Your task to perform on an android device: Set the phone to "Do not disturb". Image 0: 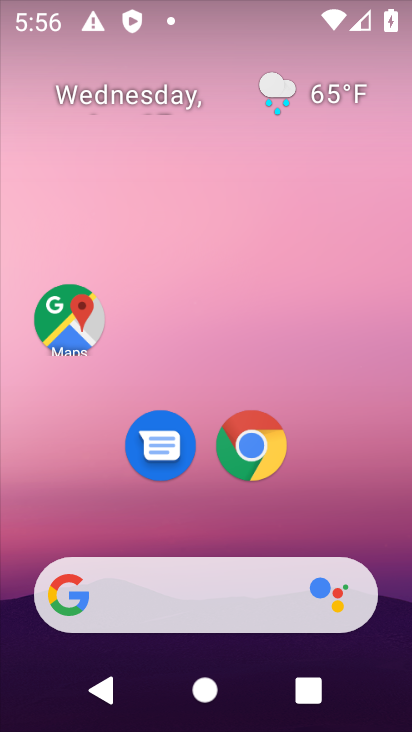
Step 0: drag from (227, 515) to (231, 168)
Your task to perform on an android device: Set the phone to "Do not disturb". Image 1: 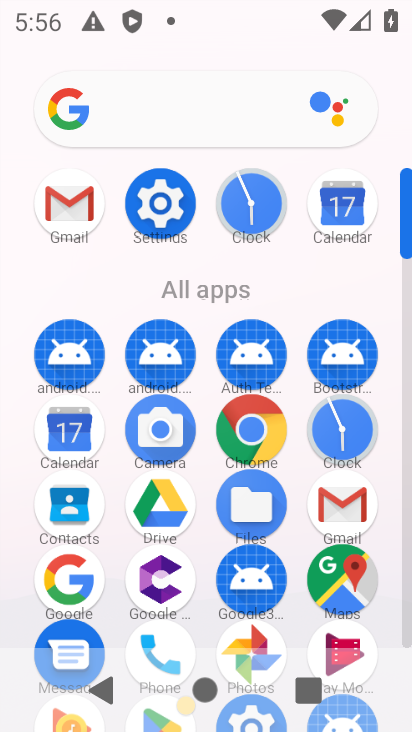
Step 1: click (172, 194)
Your task to perform on an android device: Set the phone to "Do not disturb". Image 2: 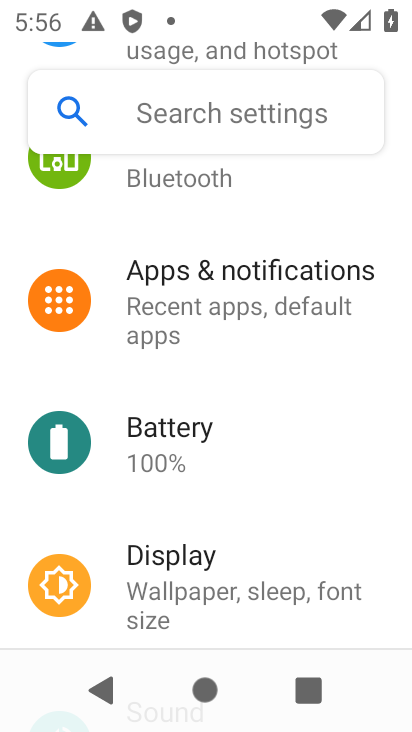
Step 2: drag from (254, 550) to (260, 198)
Your task to perform on an android device: Set the phone to "Do not disturb". Image 3: 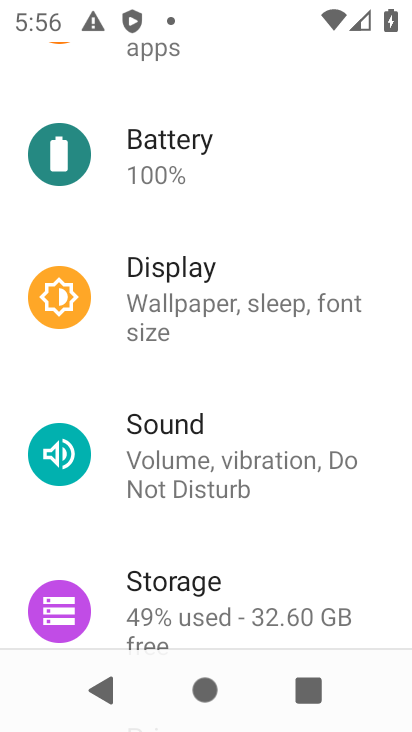
Step 3: click (214, 451)
Your task to perform on an android device: Set the phone to "Do not disturb". Image 4: 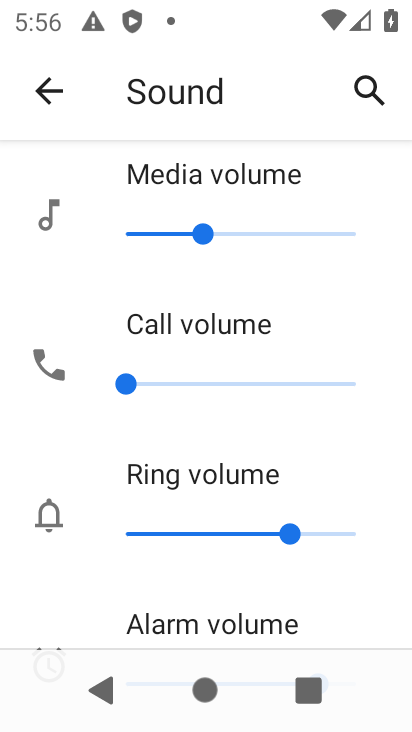
Step 4: drag from (194, 565) to (211, 176)
Your task to perform on an android device: Set the phone to "Do not disturb". Image 5: 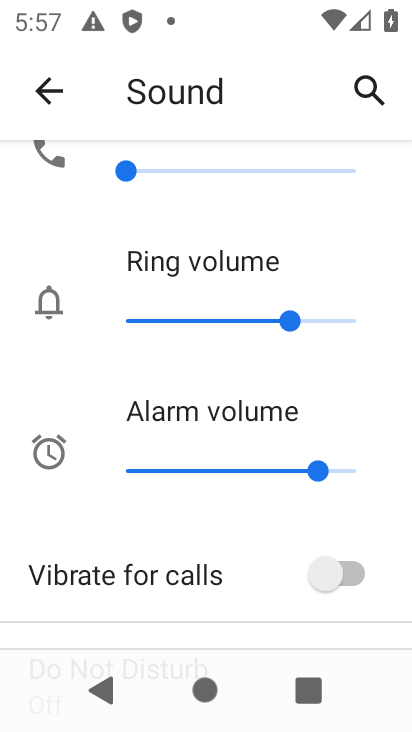
Step 5: drag from (204, 546) to (219, 187)
Your task to perform on an android device: Set the phone to "Do not disturb". Image 6: 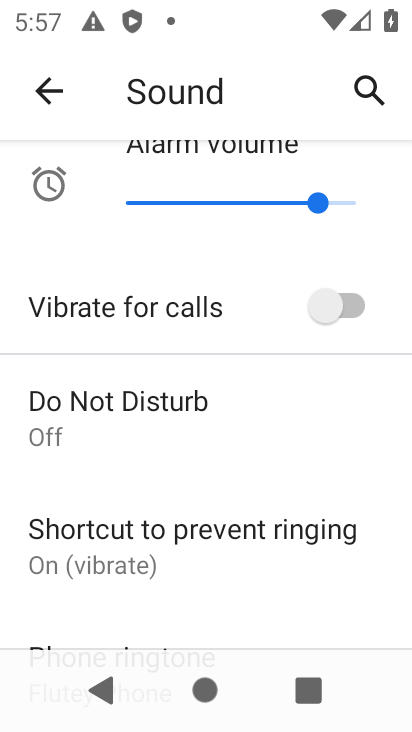
Step 6: click (170, 408)
Your task to perform on an android device: Set the phone to "Do not disturb". Image 7: 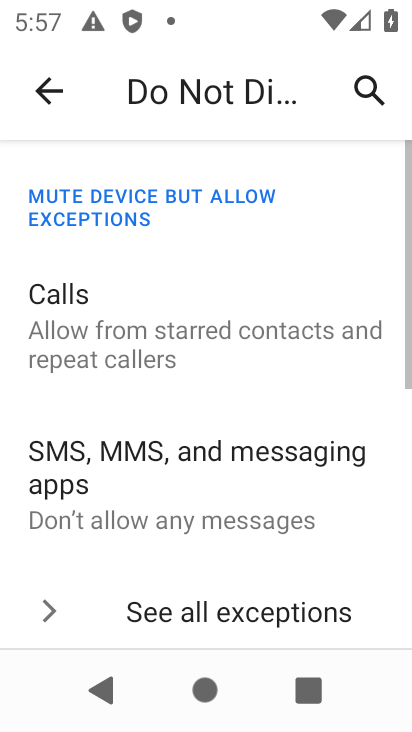
Step 7: drag from (176, 533) to (180, 188)
Your task to perform on an android device: Set the phone to "Do not disturb". Image 8: 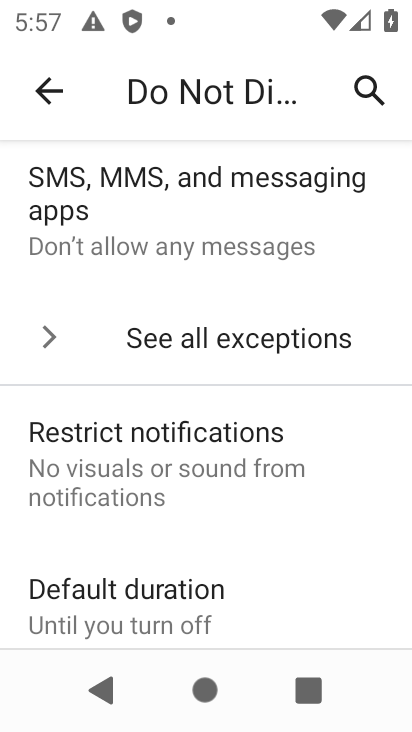
Step 8: click (163, 593)
Your task to perform on an android device: Set the phone to "Do not disturb". Image 9: 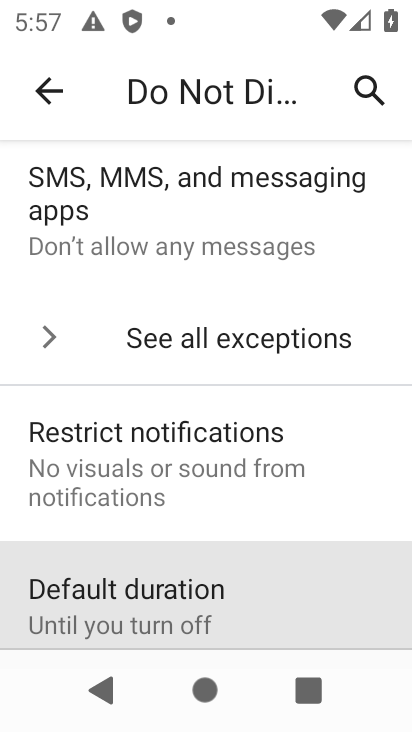
Step 9: drag from (165, 591) to (173, 365)
Your task to perform on an android device: Set the phone to "Do not disturb". Image 10: 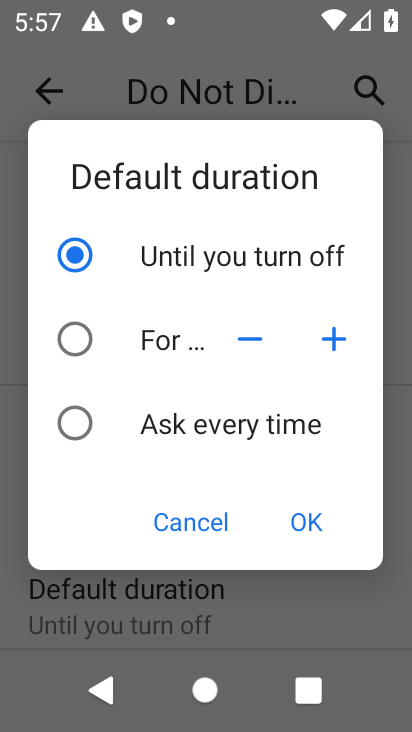
Step 10: click (177, 527)
Your task to perform on an android device: Set the phone to "Do not disturb". Image 11: 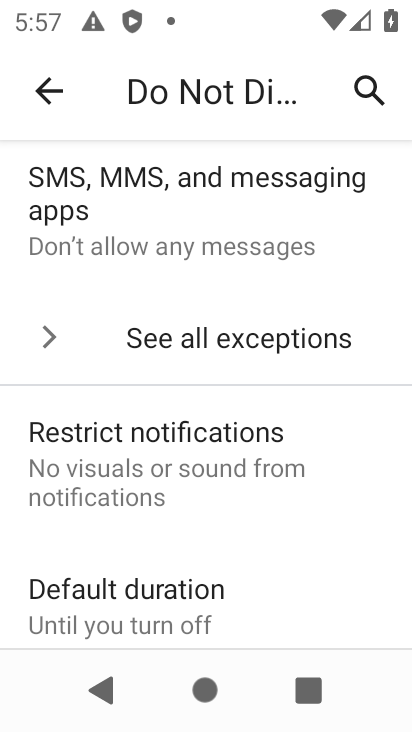
Step 11: drag from (197, 555) to (197, 273)
Your task to perform on an android device: Set the phone to "Do not disturb". Image 12: 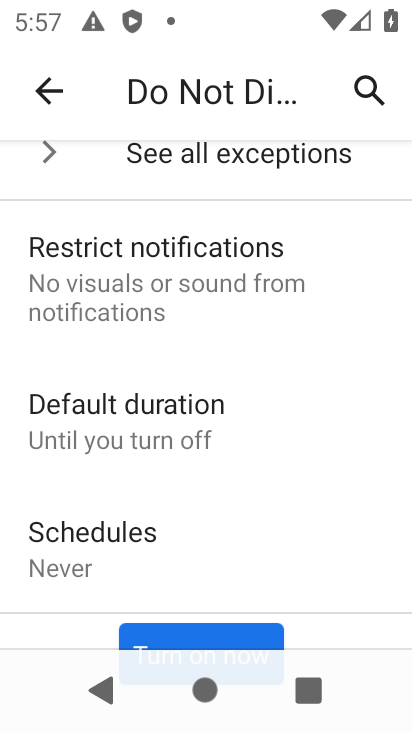
Step 12: drag from (197, 602) to (206, 306)
Your task to perform on an android device: Set the phone to "Do not disturb". Image 13: 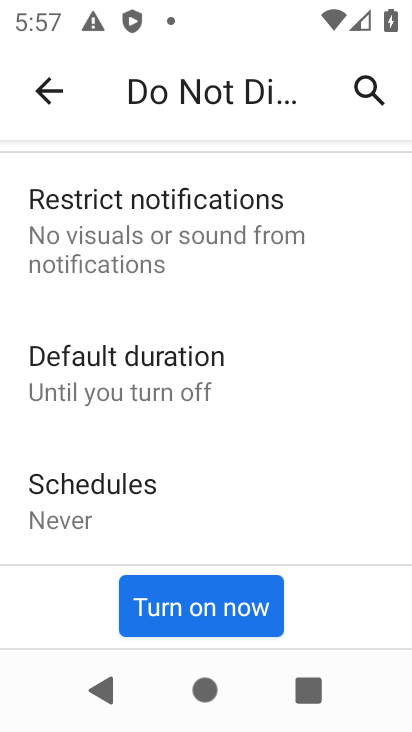
Step 13: click (213, 582)
Your task to perform on an android device: Set the phone to "Do not disturb". Image 14: 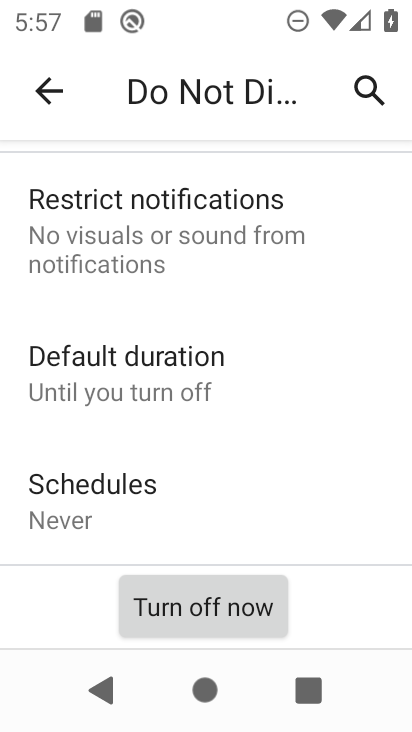
Step 14: task complete